Your task to perform on an android device: change the clock display to analog Image 0: 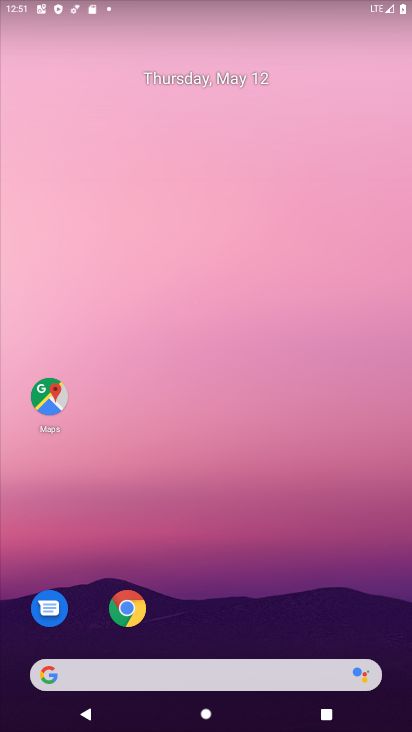
Step 0: drag from (302, 622) to (352, 0)
Your task to perform on an android device: change the clock display to analog Image 1: 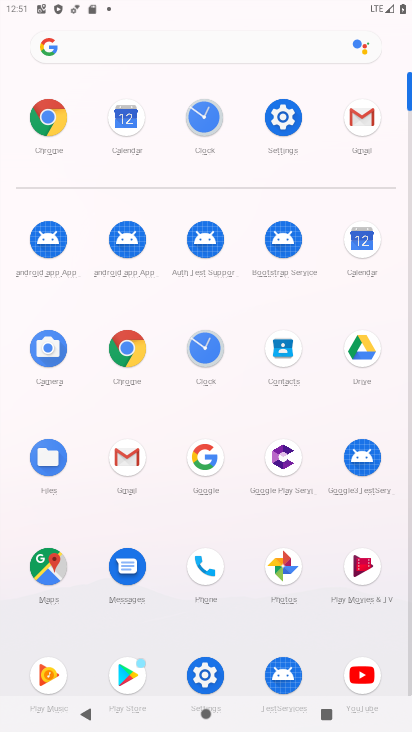
Step 1: click (206, 115)
Your task to perform on an android device: change the clock display to analog Image 2: 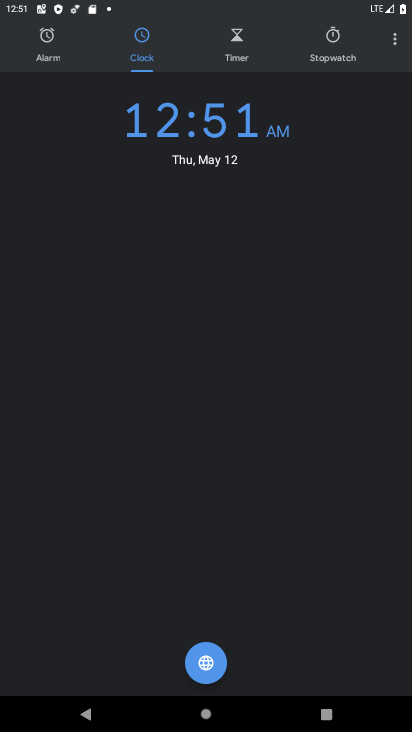
Step 2: click (401, 39)
Your task to perform on an android device: change the clock display to analog Image 3: 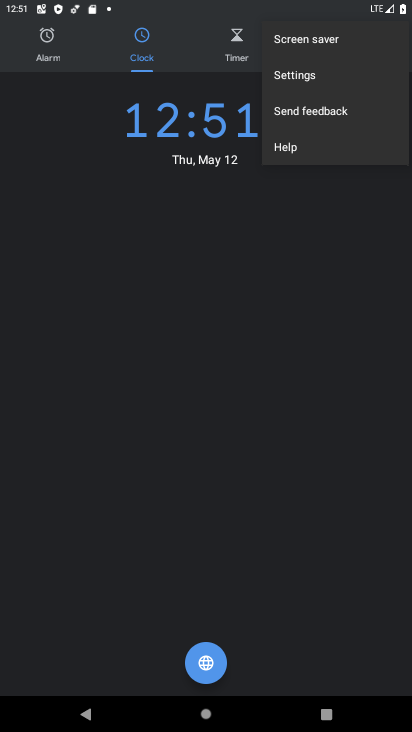
Step 3: click (297, 79)
Your task to perform on an android device: change the clock display to analog Image 4: 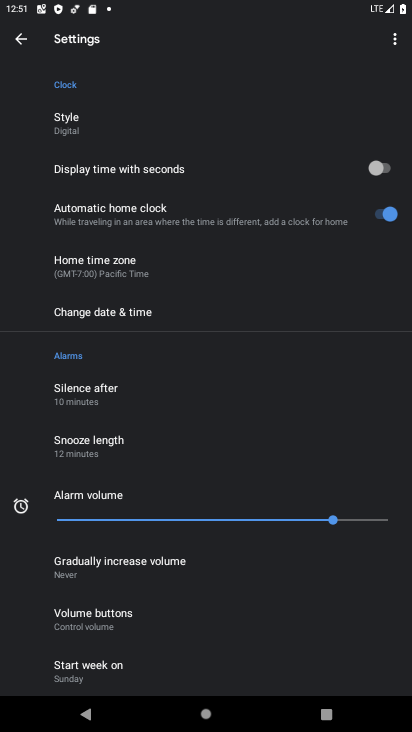
Step 4: click (77, 114)
Your task to perform on an android device: change the clock display to analog Image 5: 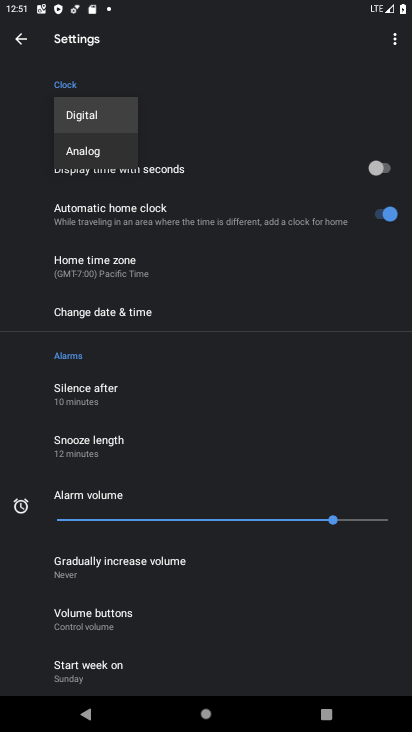
Step 5: click (89, 159)
Your task to perform on an android device: change the clock display to analog Image 6: 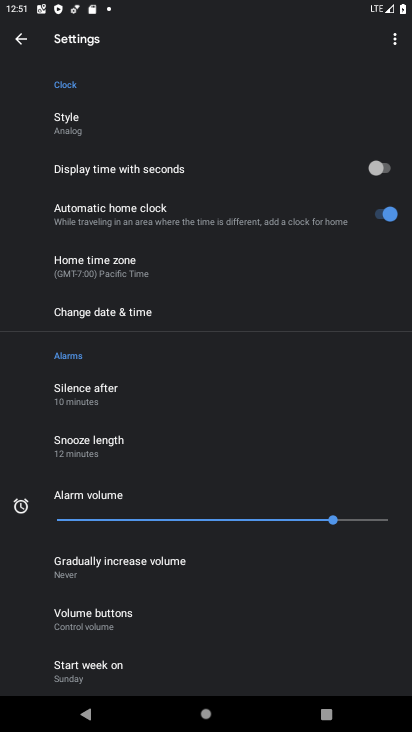
Step 6: task complete